Your task to perform on an android device: toggle priority inbox in the gmail app Image 0: 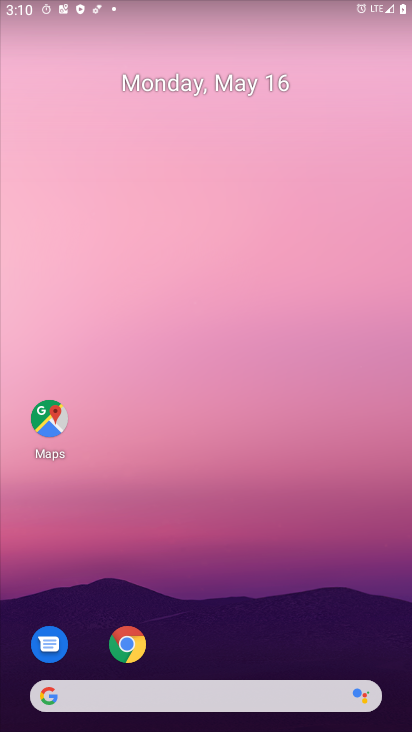
Step 0: drag from (237, 641) to (285, 240)
Your task to perform on an android device: toggle priority inbox in the gmail app Image 1: 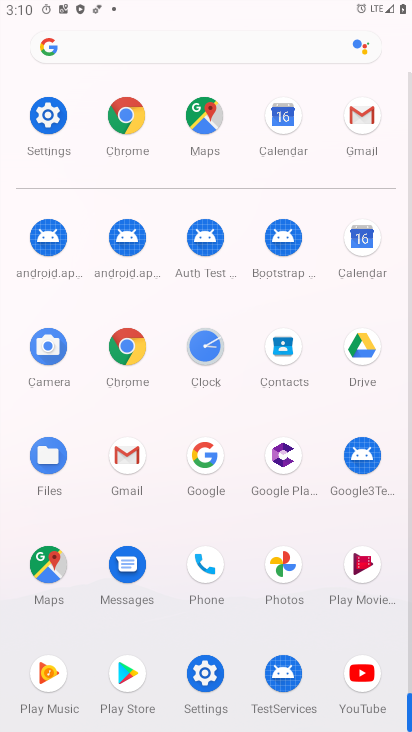
Step 1: click (366, 132)
Your task to perform on an android device: toggle priority inbox in the gmail app Image 2: 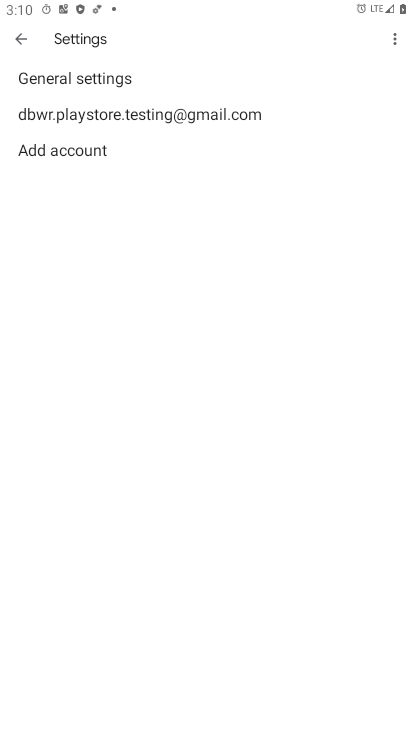
Step 2: click (217, 110)
Your task to perform on an android device: toggle priority inbox in the gmail app Image 3: 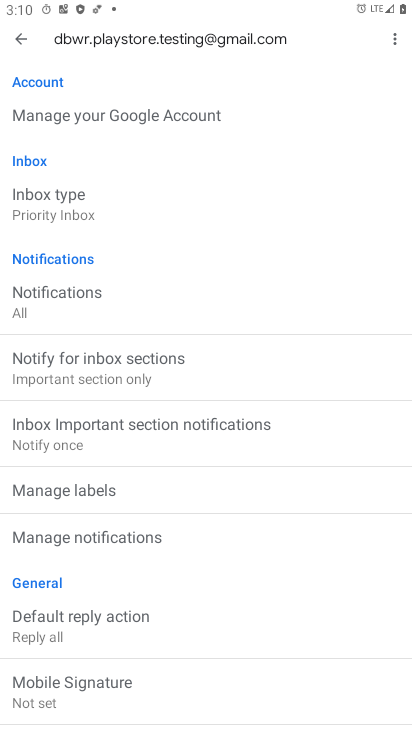
Step 3: click (124, 200)
Your task to perform on an android device: toggle priority inbox in the gmail app Image 4: 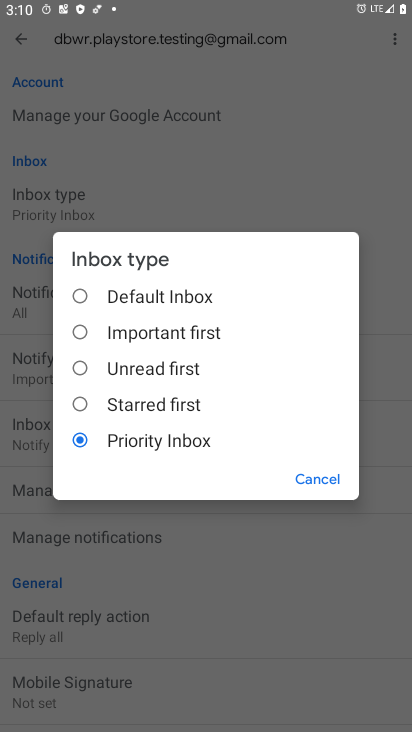
Step 4: click (91, 291)
Your task to perform on an android device: toggle priority inbox in the gmail app Image 5: 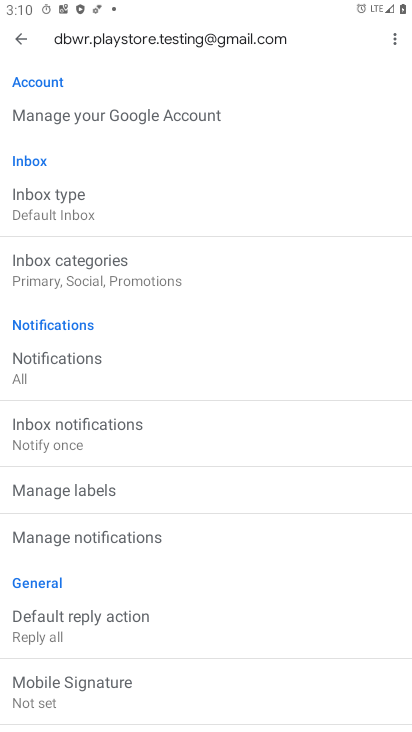
Step 5: task complete